Your task to perform on an android device: turn on bluetooth scan Image 0: 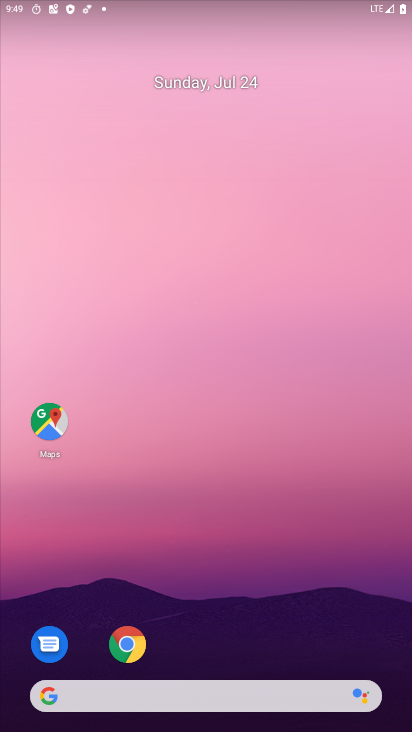
Step 0: drag from (154, 682) to (161, 181)
Your task to perform on an android device: turn on bluetooth scan Image 1: 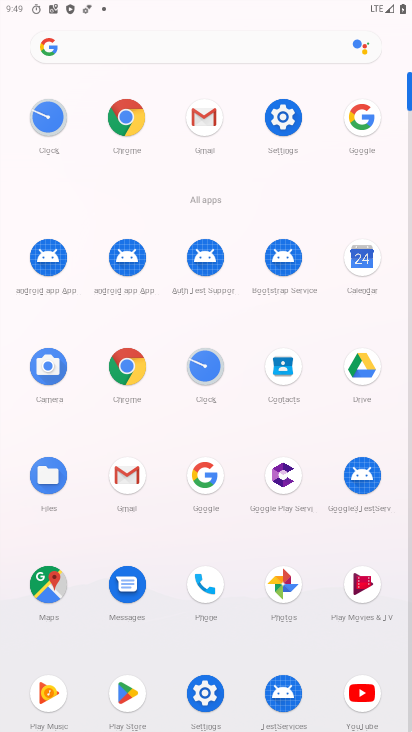
Step 1: click (210, 693)
Your task to perform on an android device: turn on bluetooth scan Image 2: 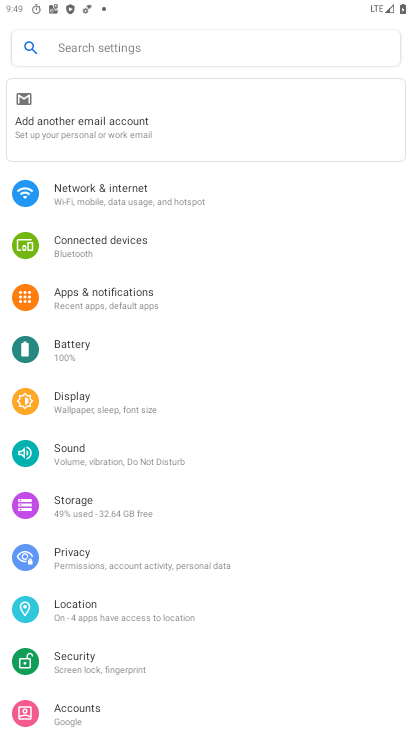
Step 2: click (69, 611)
Your task to perform on an android device: turn on bluetooth scan Image 3: 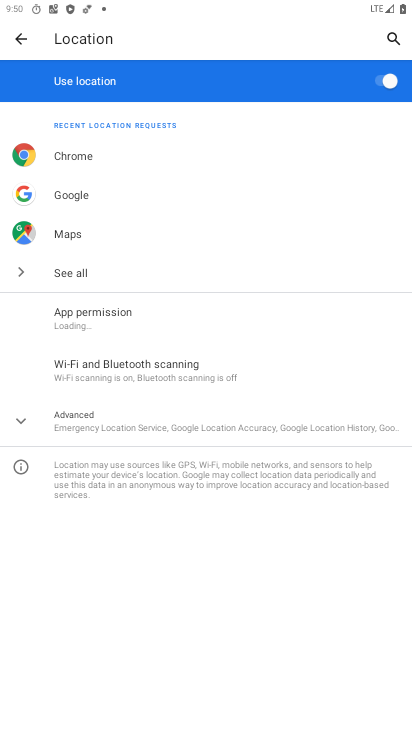
Step 3: click (91, 369)
Your task to perform on an android device: turn on bluetooth scan Image 4: 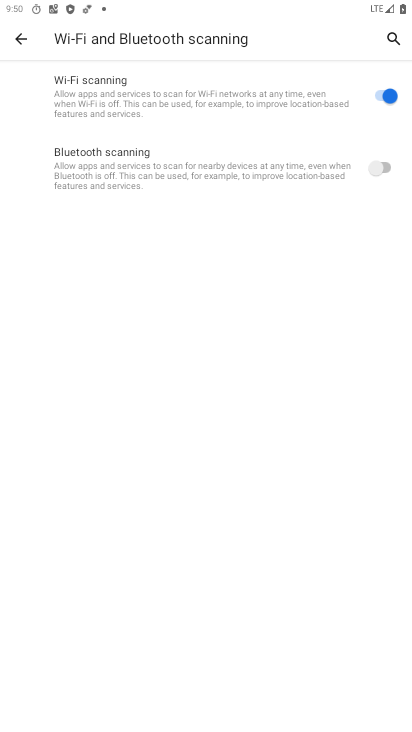
Step 4: click (381, 169)
Your task to perform on an android device: turn on bluetooth scan Image 5: 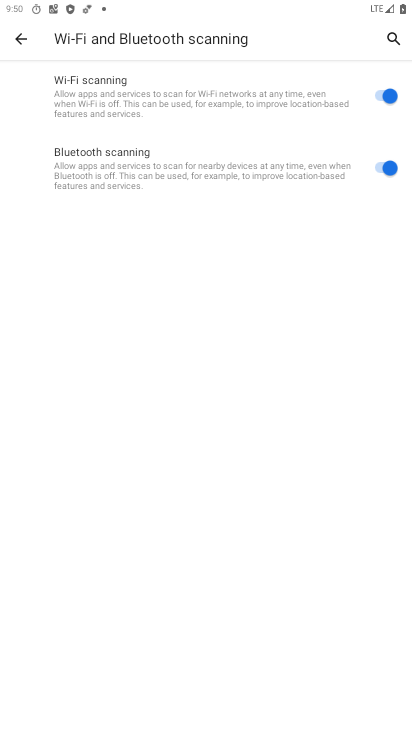
Step 5: task complete